Your task to perform on an android device: Open notification settings Image 0: 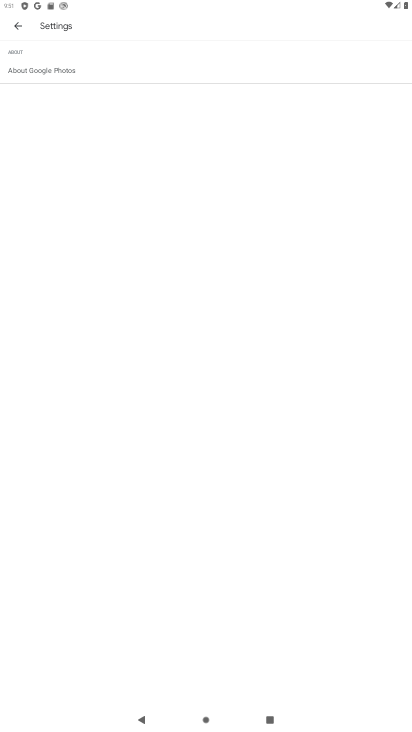
Step 0: press home button
Your task to perform on an android device: Open notification settings Image 1: 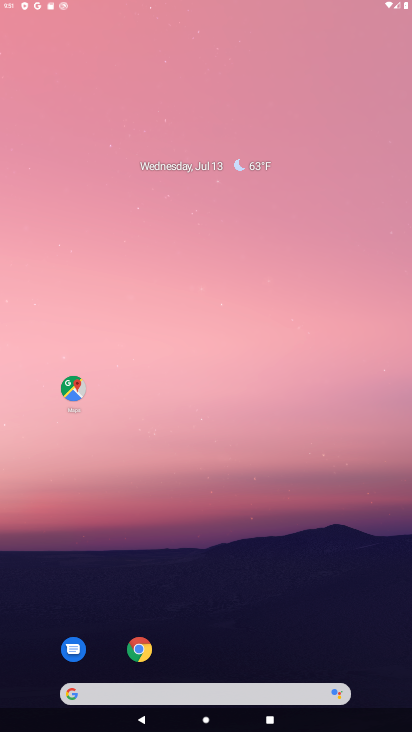
Step 1: drag from (280, 581) to (232, 46)
Your task to perform on an android device: Open notification settings Image 2: 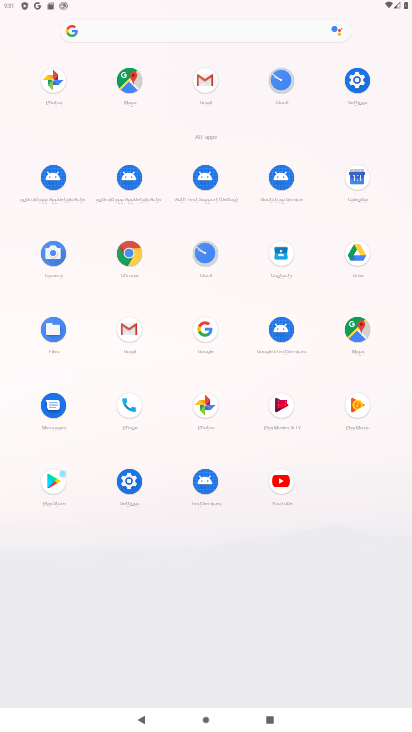
Step 2: click (118, 483)
Your task to perform on an android device: Open notification settings Image 3: 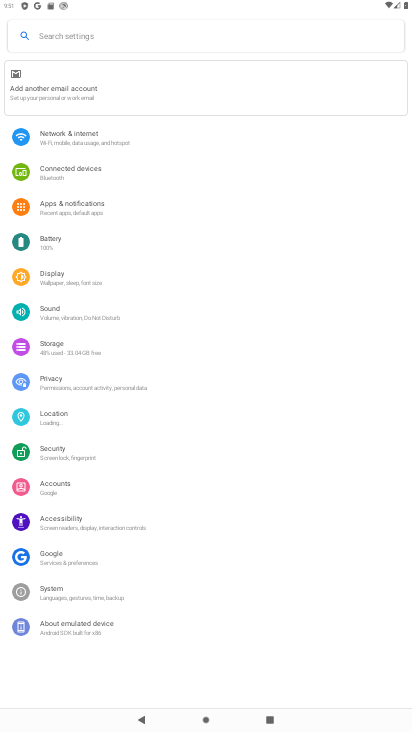
Step 3: click (72, 200)
Your task to perform on an android device: Open notification settings Image 4: 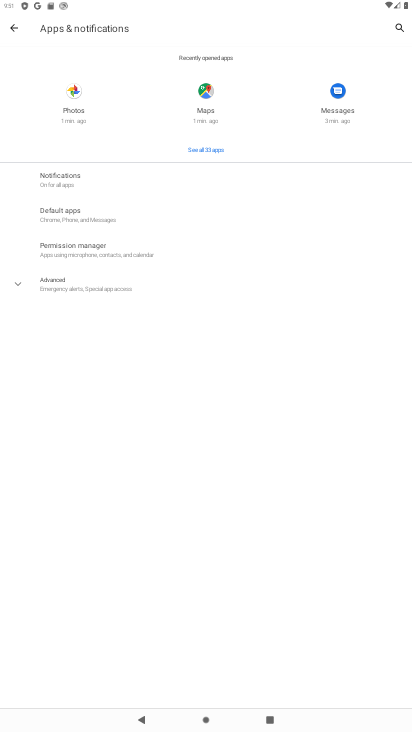
Step 4: task complete